Your task to perform on an android device: Go to accessibility settings Image 0: 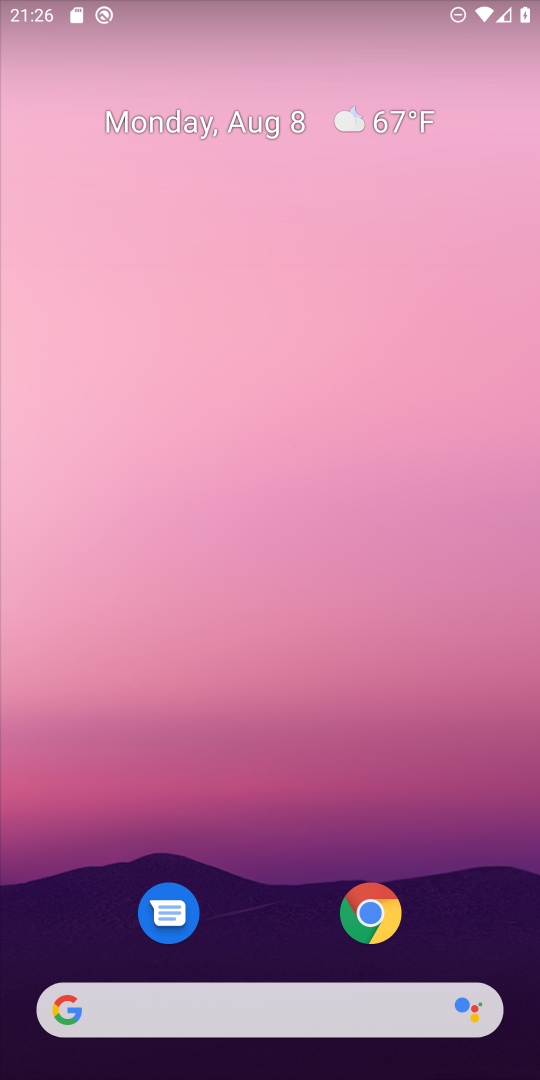
Step 0: drag from (208, 1022) to (291, 93)
Your task to perform on an android device: Go to accessibility settings Image 1: 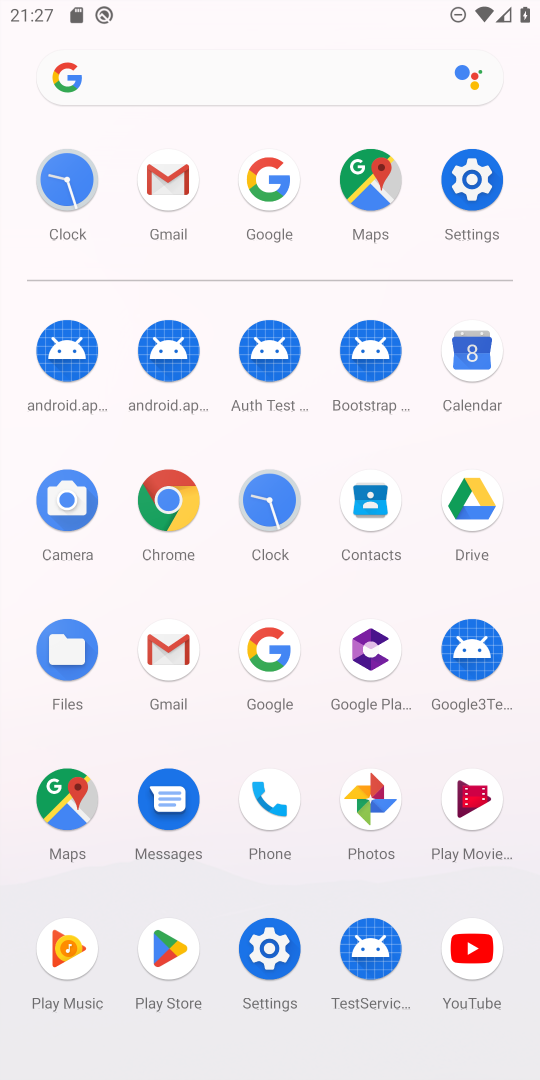
Step 1: click (470, 179)
Your task to perform on an android device: Go to accessibility settings Image 2: 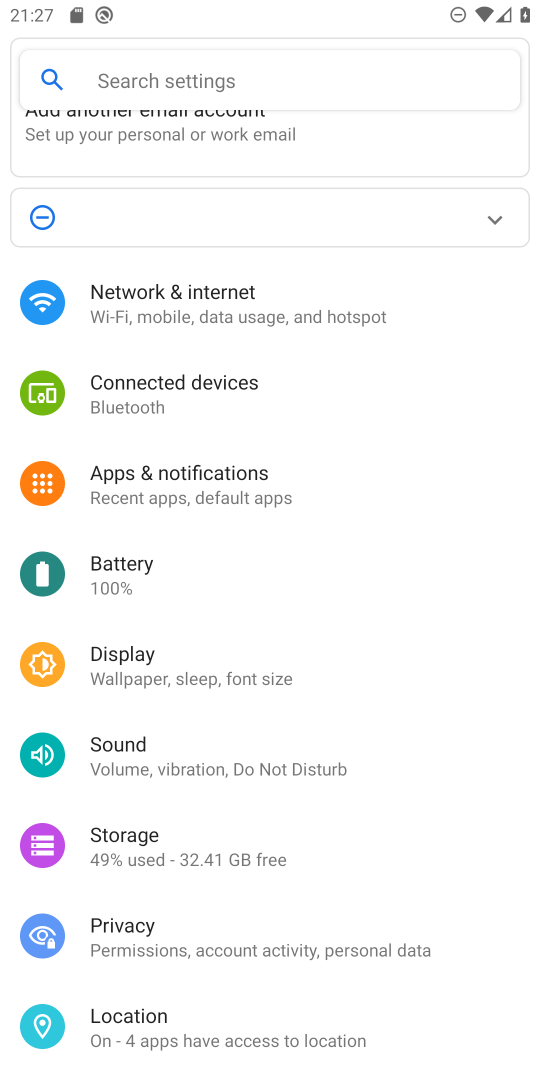
Step 2: drag from (130, 781) to (227, 664)
Your task to perform on an android device: Go to accessibility settings Image 3: 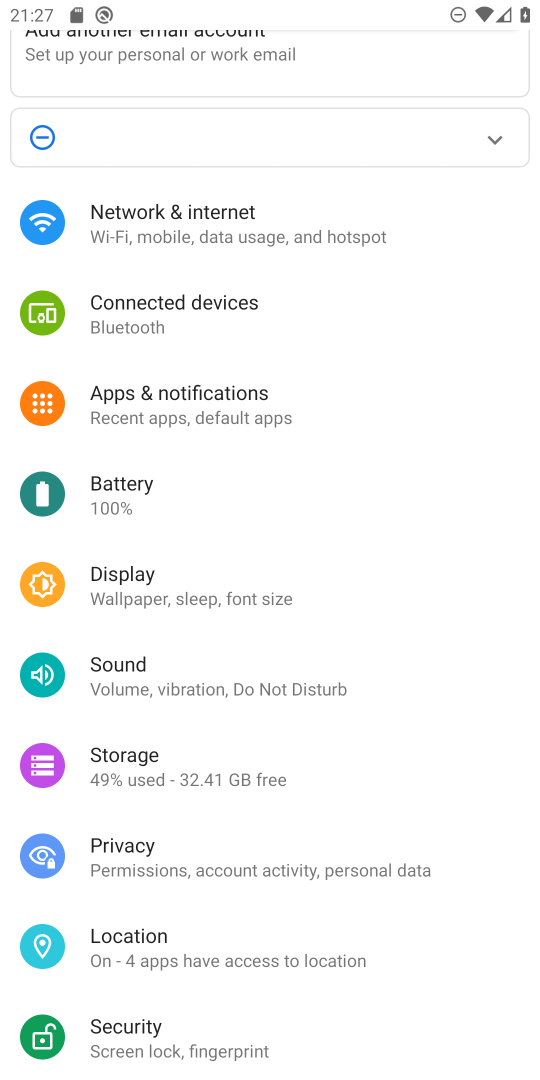
Step 3: drag from (128, 811) to (219, 686)
Your task to perform on an android device: Go to accessibility settings Image 4: 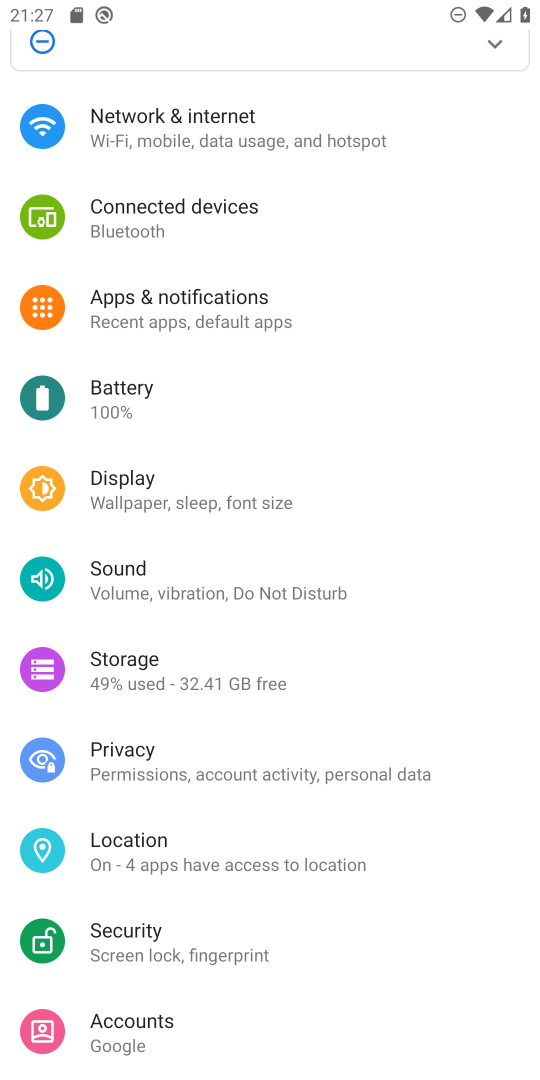
Step 4: drag from (130, 796) to (218, 652)
Your task to perform on an android device: Go to accessibility settings Image 5: 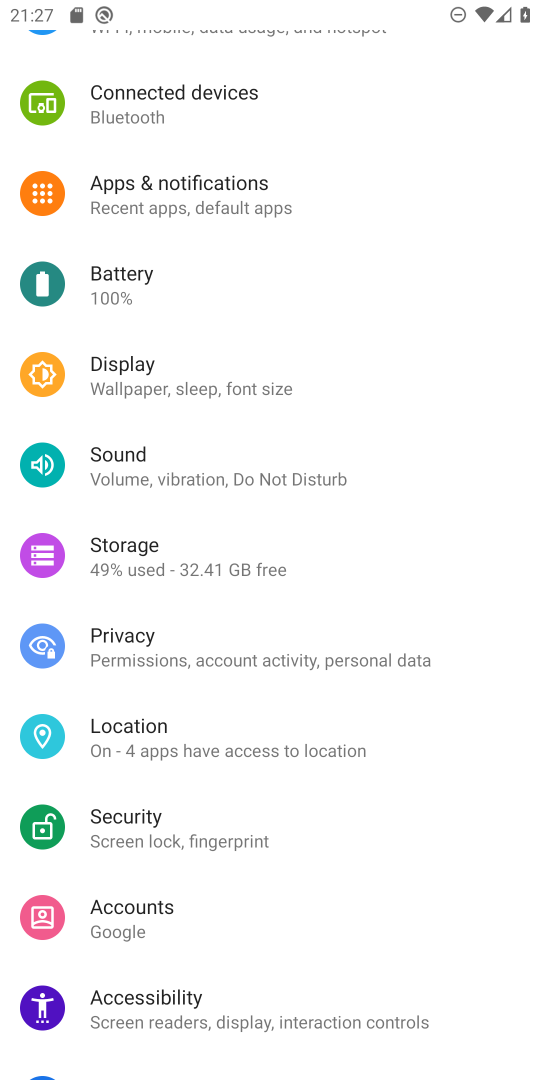
Step 5: drag from (97, 876) to (257, 701)
Your task to perform on an android device: Go to accessibility settings Image 6: 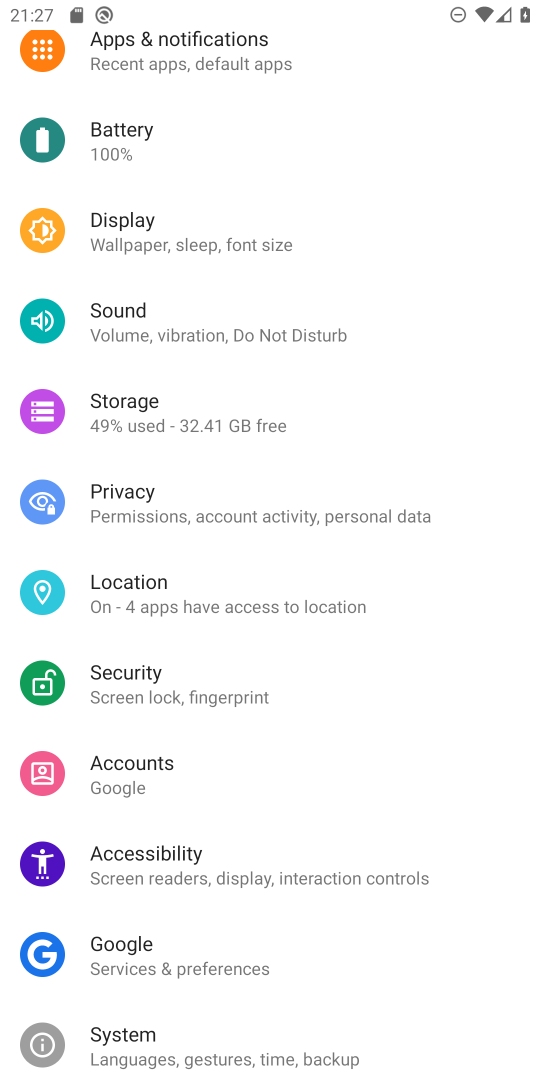
Step 6: click (183, 862)
Your task to perform on an android device: Go to accessibility settings Image 7: 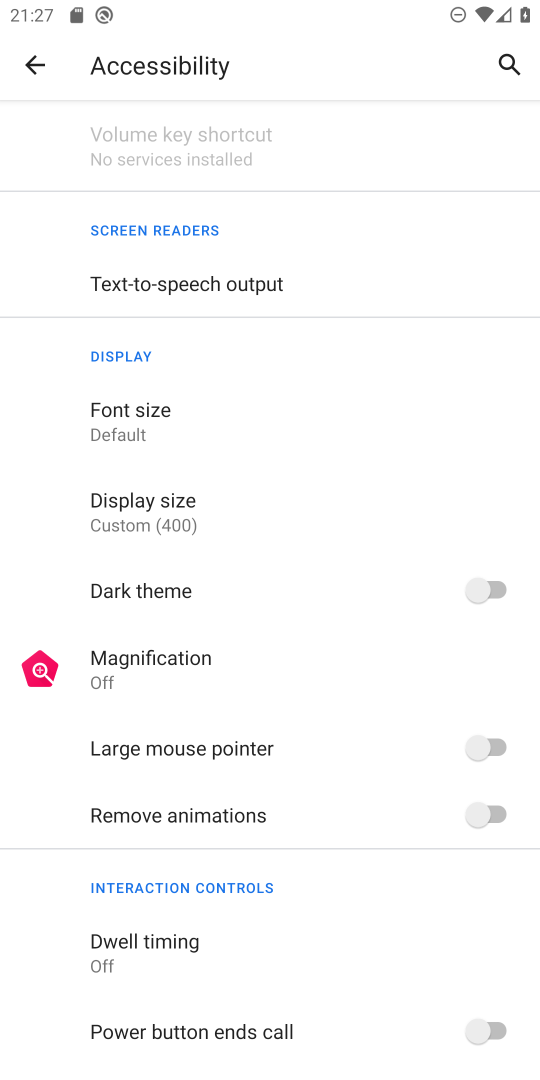
Step 7: task complete